Your task to perform on an android device: check data usage Image 0: 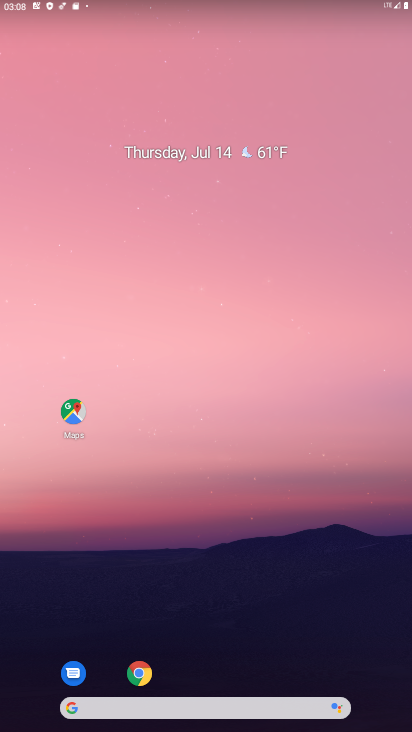
Step 0: drag from (286, 635) to (257, 272)
Your task to perform on an android device: check data usage Image 1: 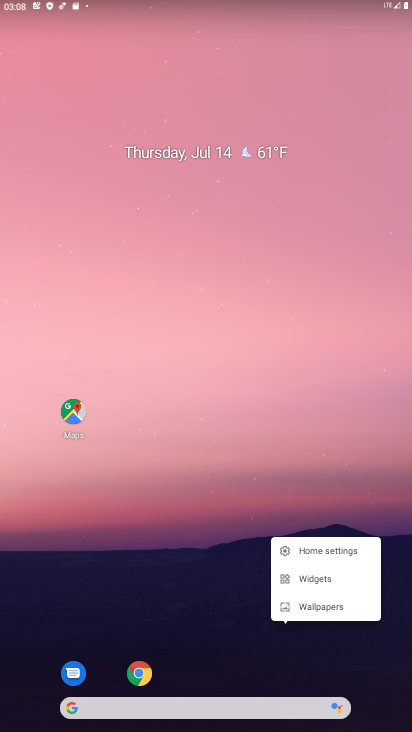
Step 1: click (216, 413)
Your task to perform on an android device: check data usage Image 2: 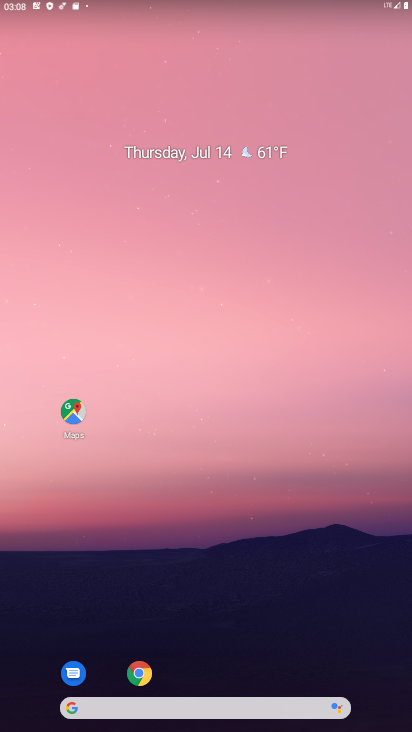
Step 2: drag from (216, 633) to (205, 148)
Your task to perform on an android device: check data usage Image 3: 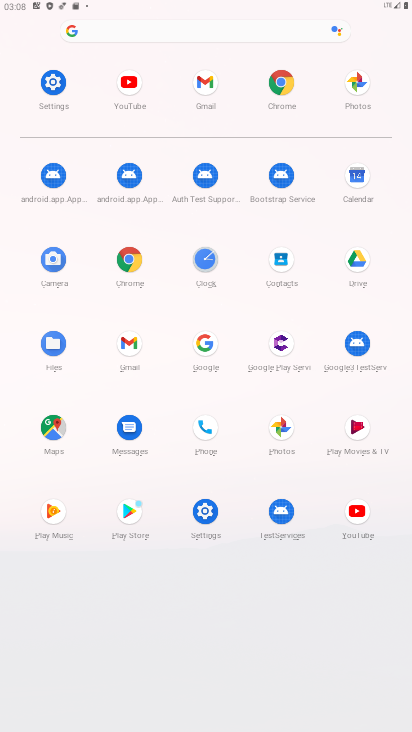
Step 3: click (61, 87)
Your task to perform on an android device: check data usage Image 4: 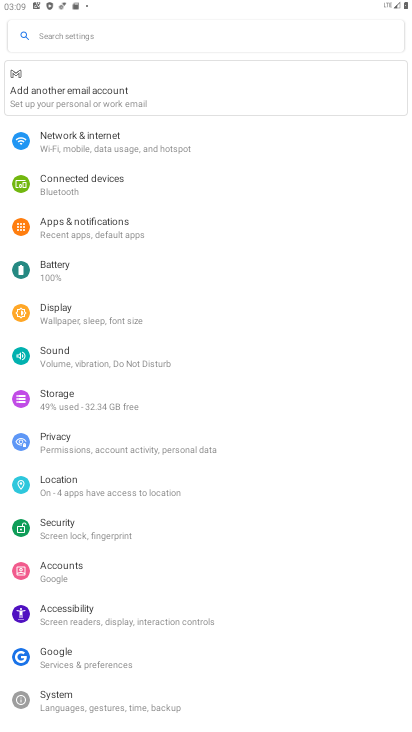
Step 4: click (144, 141)
Your task to perform on an android device: check data usage Image 5: 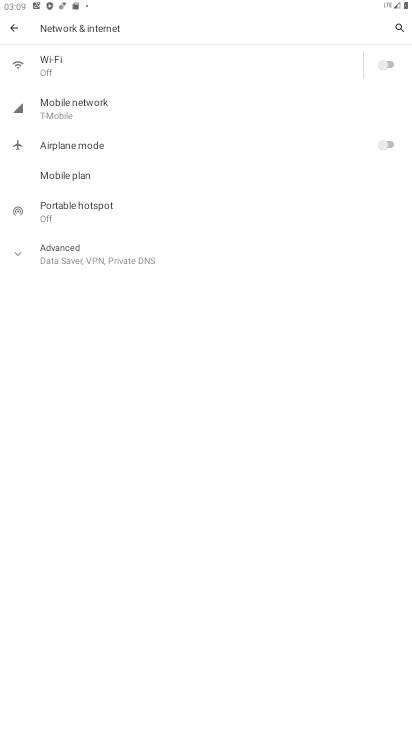
Step 5: click (159, 124)
Your task to perform on an android device: check data usage Image 6: 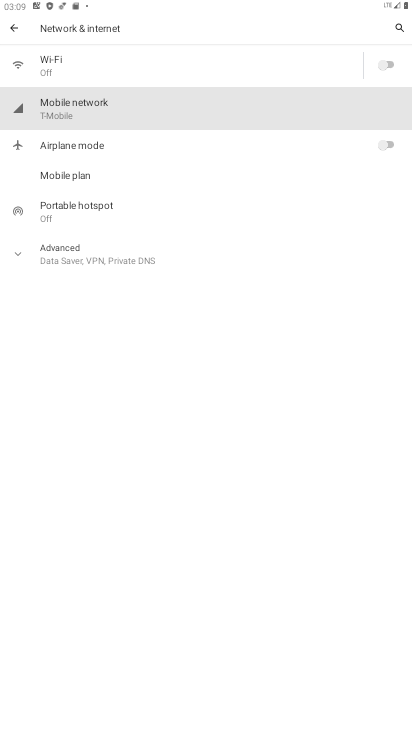
Step 6: task complete